Your task to perform on an android device: turn on location history Image 0: 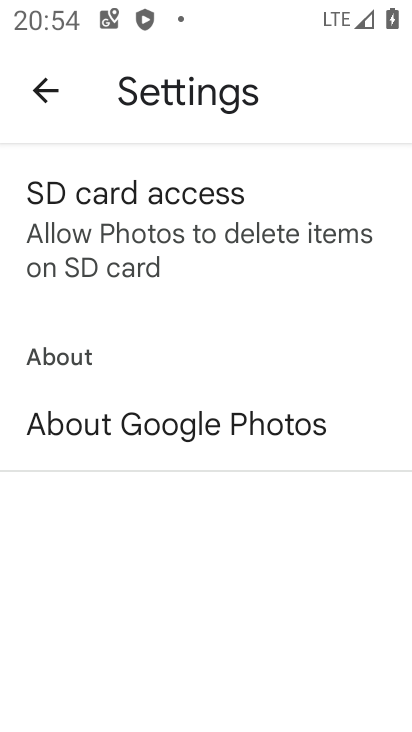
Step 0: press home button
Your task to perform on an android device: turn on location history Image 1: 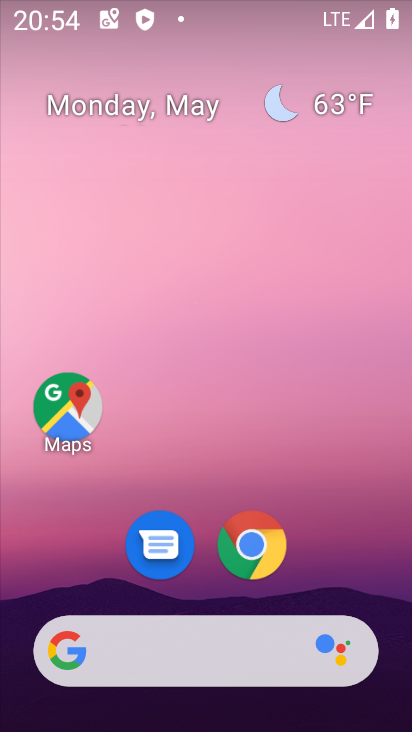
Step 1: drag from (165, 653) to (227, 237)
Your task to perform on an android device: turn on location history Image 2: 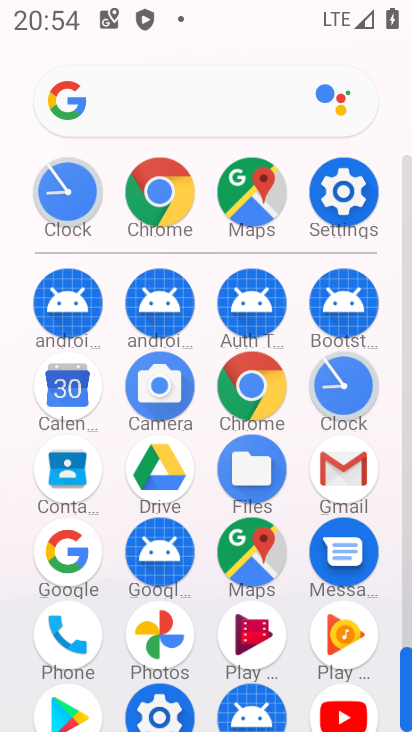
Step 2: click (332, 207)
Your task to perform on an android device: turn on location history Image 3: 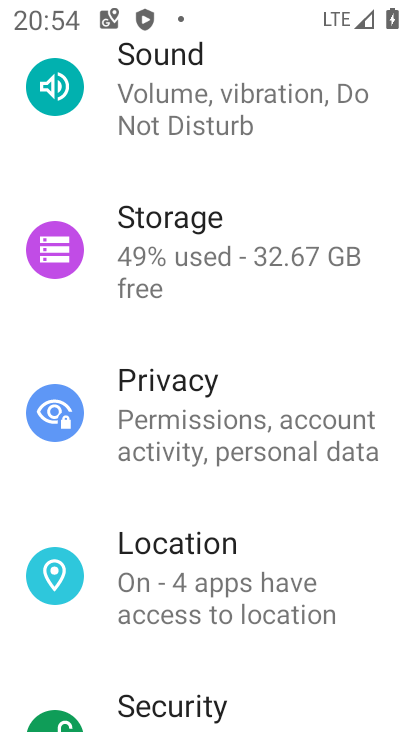
Step 3: click (191, 582)
Your task to perform on an android device: turn on location history Image 4: 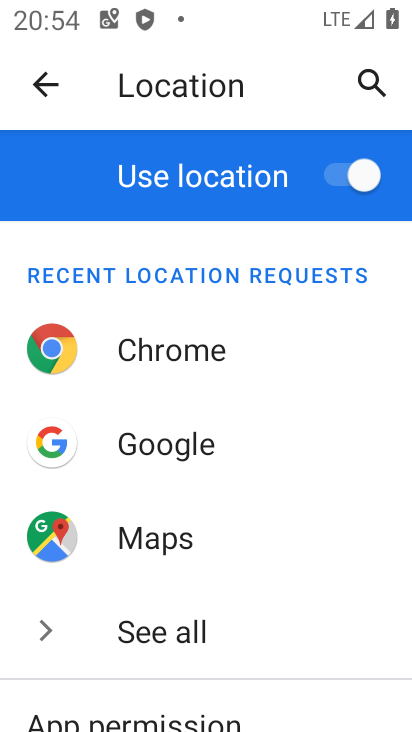
Step 4: drag from (235, 662) to (223, 167)
Your task to perform on an android device: turn on location history Image 5: 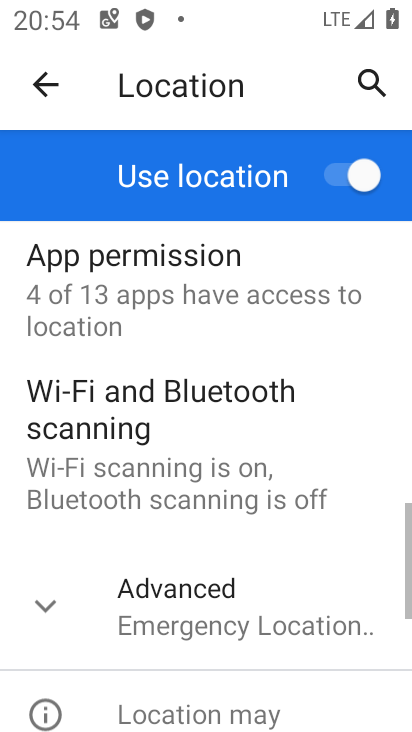
Step 5: click (242, 585)
Your task to perform on an android device: turn on location history Image 6: 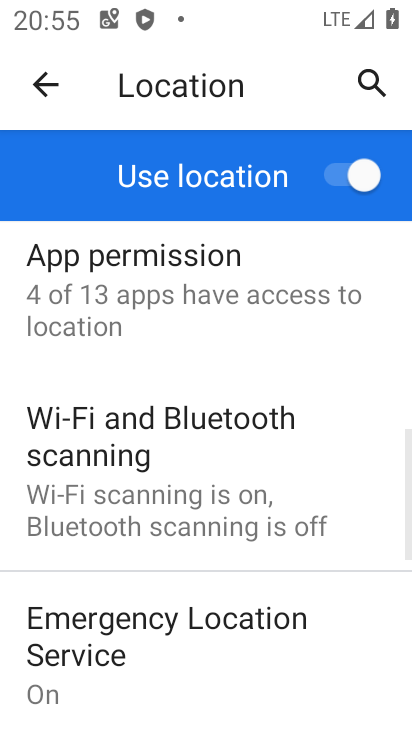
Step 6: drag from (281, 580) to (266, 216)
Your task to perform on an android device: turn on location history Image 7: 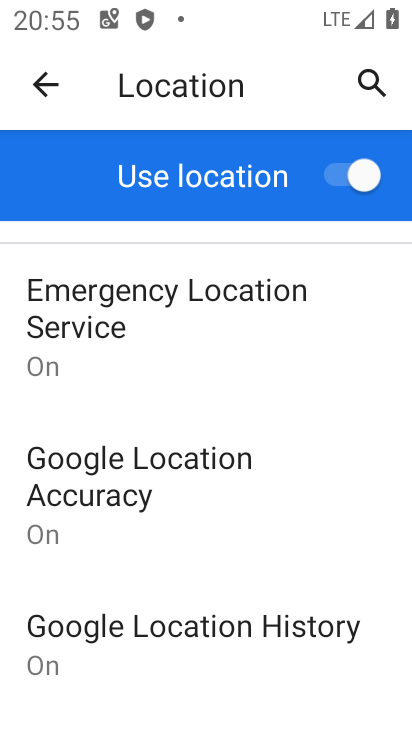
Step 7: click (178, 625)
Your task to perform on an android device: turn on location history Image 8: 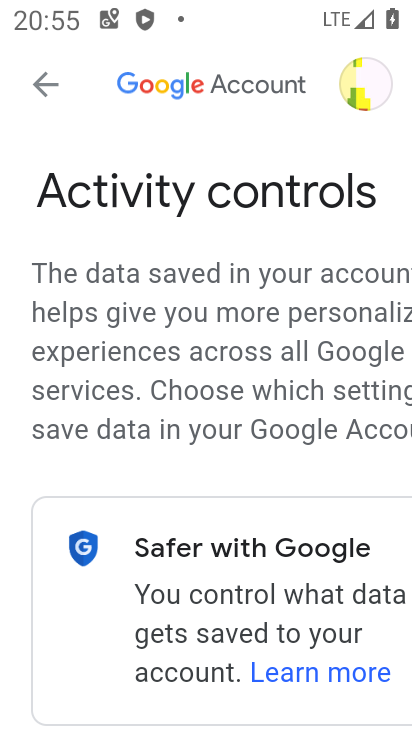
Step 8: drag from (312, 607) to (142, 311)
Your task to perform on an android device: turn on location history Image 9: 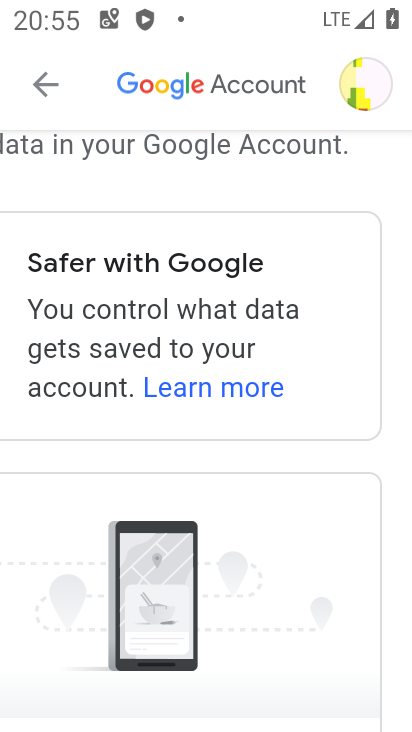
Step 9: drag from (384, 590) to (230, 124)
Your task to perform on an android device: turn on location history Image 10: 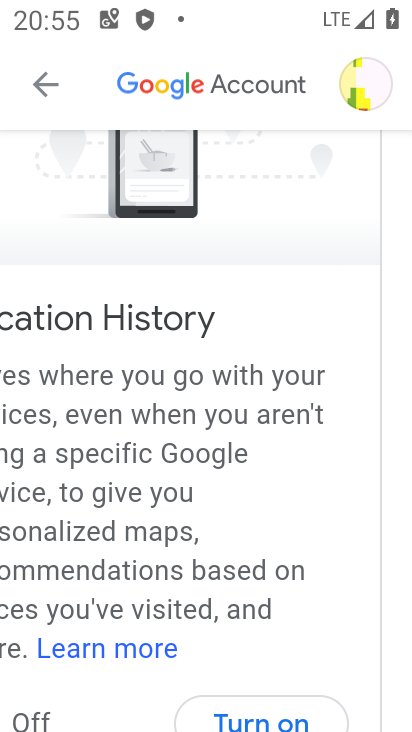
Step 10: drag from (323, 545) to (270, 309)
Your task to perform on an android device: turn on location history Image 11: 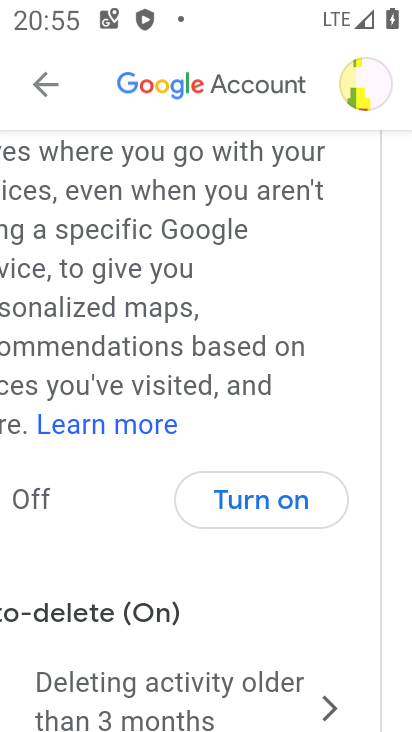
Step 11: click (248, 498)
Your task to perform on an android device: turn on location history Image 12: 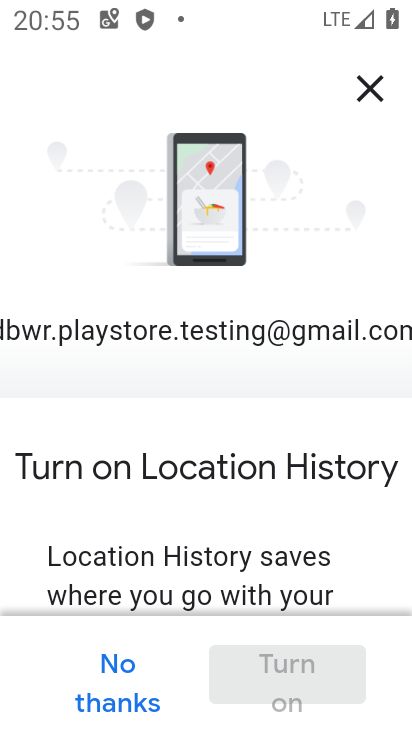
Step 12: drag from (338, 575) to (204, 24)
Your task to perform on an android device: turn on location history Image 13: 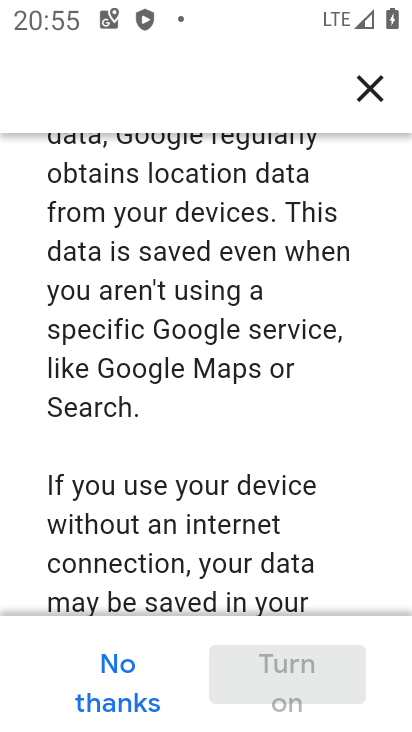
Step 13: drag from (316, 403) to (189, 27)
Your task to perform on an android device: turn on location history Image 14: 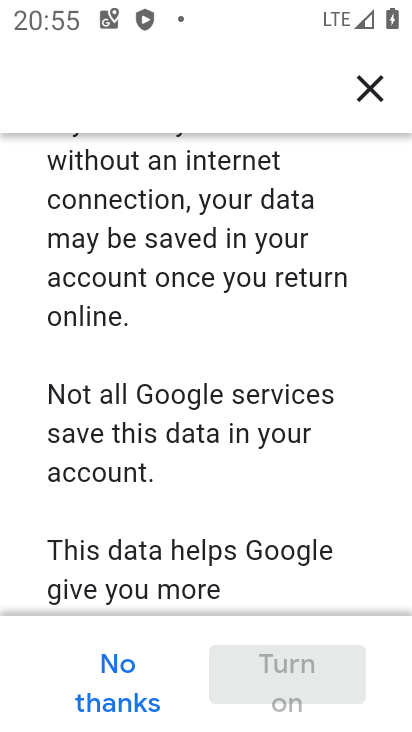
Step 14: drag from (326, 490) to (213, 69)
Your task to perform on an android device: turn on location history Image 15: 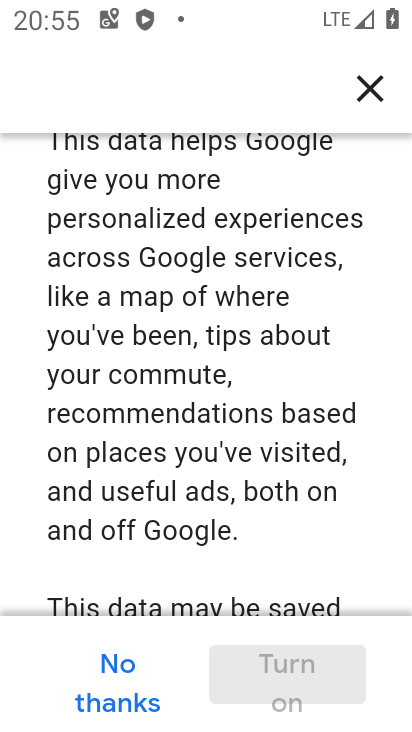
Step 15: drag from (362, 466) to (255, 52)
Your task to perform on an android device: turn on location history Image 16: 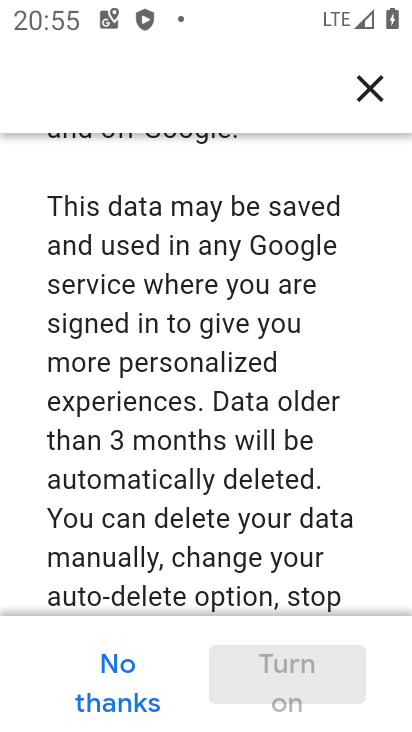
Step 16: drag from (367, 512) to (233, 44)
Your task to perform on an android device: turn on location history Image 17: 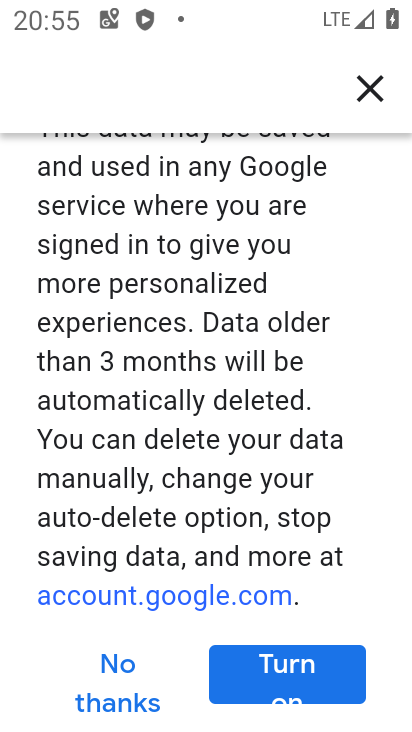
Step 17: click (279, 682)
Your task to perform on an android device: turn on location history Image 18: 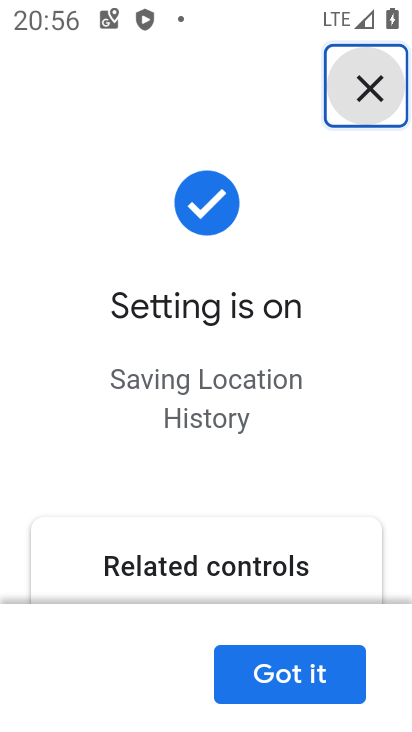
Step 18: click (280, 679)
Your task to perform on an android device: turn on location history Image 19: 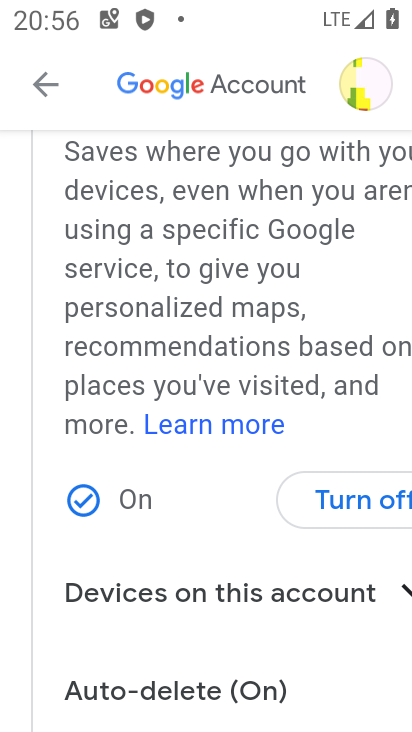
Step 19: task complete